Your task to perform on an android device: Open the web browser Image 0: 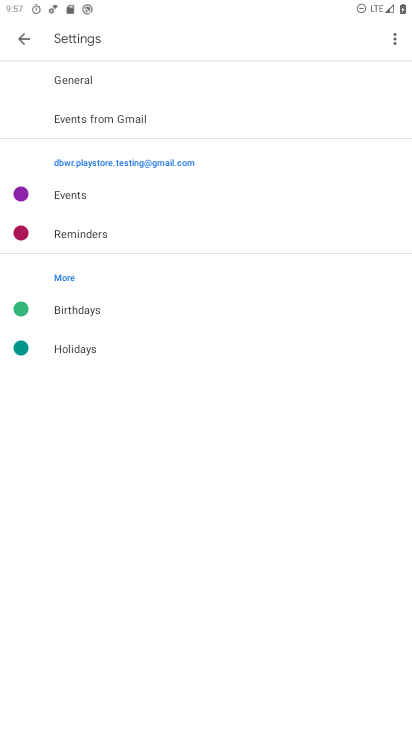
Step 0: press home button
Your task to perform on an android device: Open the web browser Image 1: 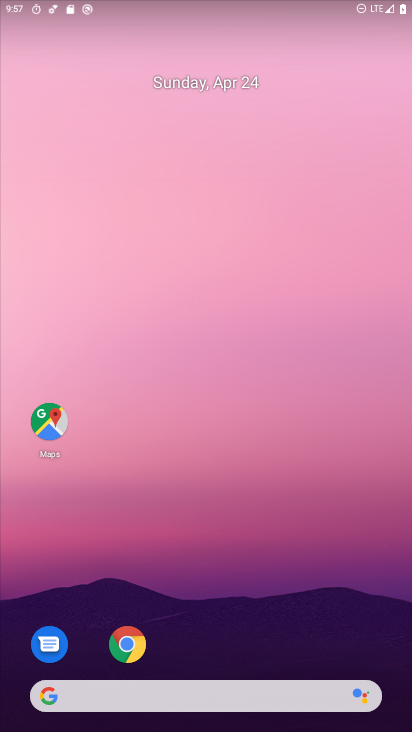
Step 1: drag from (227, 671) to (153, 121)
Your task to perform on an android device: Open the web browser Image 2: 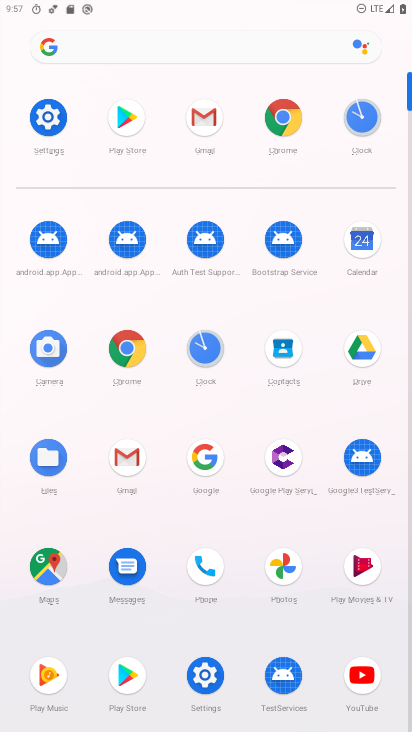
Step 2: click (209, 465)
Your task to perform on an android device: Open the web browser Image 3: 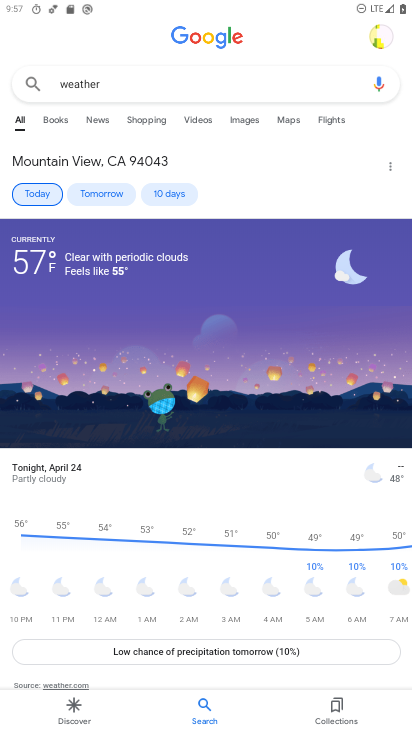
Step 3: click (164, 78)
Your task to perform on an android device: Open the web browser Image 4: 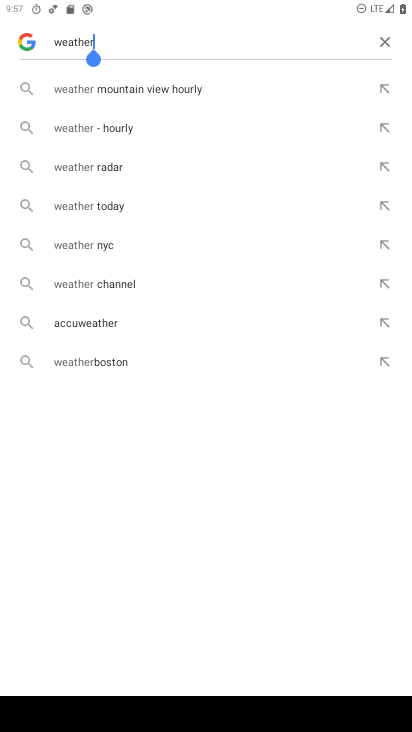
Step 4: task complete